Your task to perform on an android device: Open calendar and show me the second week of next month Image 0: 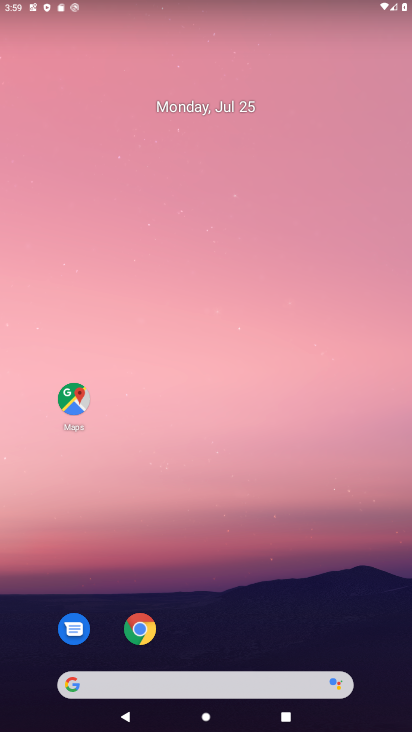
Step 0: drag from (225, 592) to (287, 111)
Your task to perform on an android device: Open calendar and show me the second week of next month Image 1: 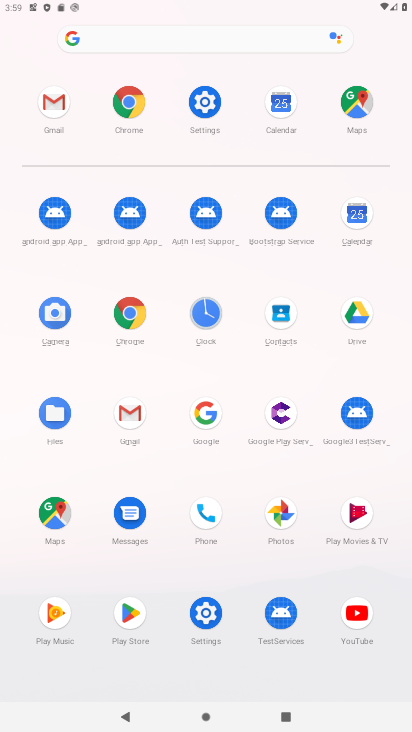
Step 1: click (358, 208)
Your task to perform on an android device: Open calendar and show me the second week of next month Image 2: 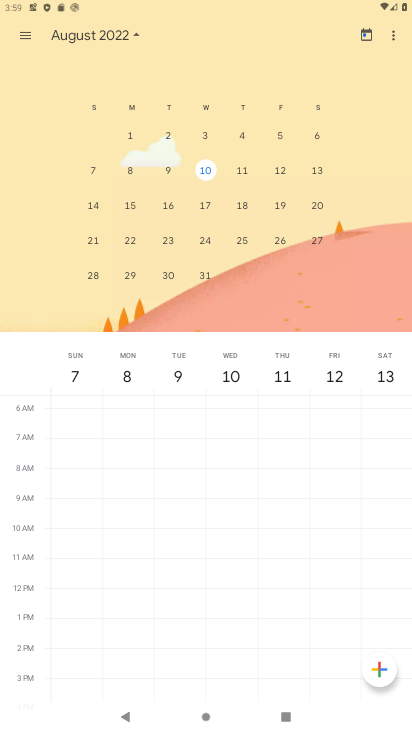
Step 2: click (343, 193)
Your task to perform on an android device: Open calendar and show me the second week of next month Image 3: 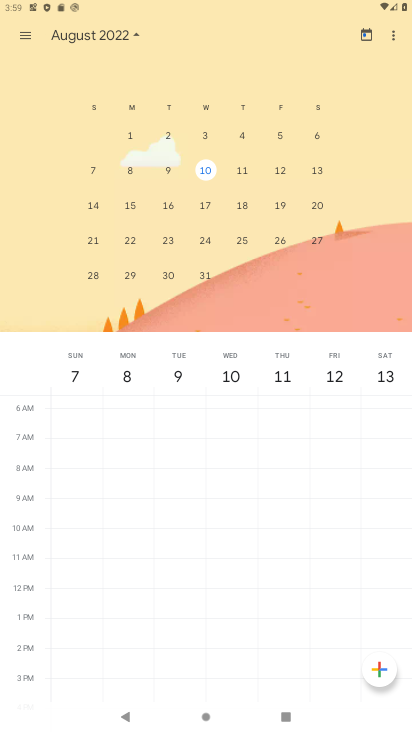
Step 3: click (214, 169)
Your task to perform on an android device: Open calendar and show me the second week of next month Image 4: 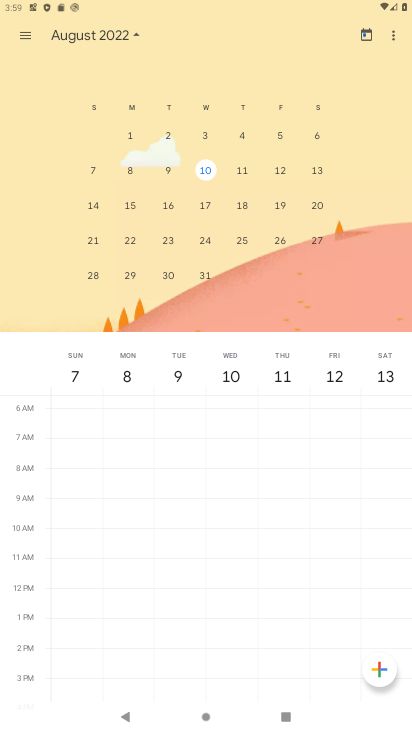
Step 4: task complete